Your task to perform on an android device: turn off improve location accuracy Image 0: 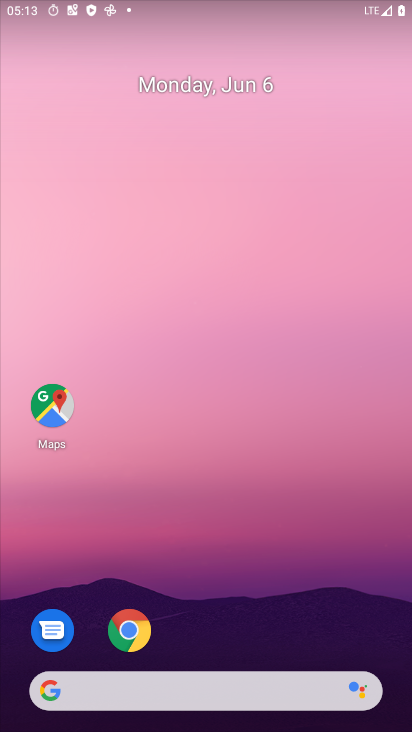
Step 0: drag from (267, 617) to (259, 84)
Your task to perform on an android device: turn off improve location accuracy Image 1: 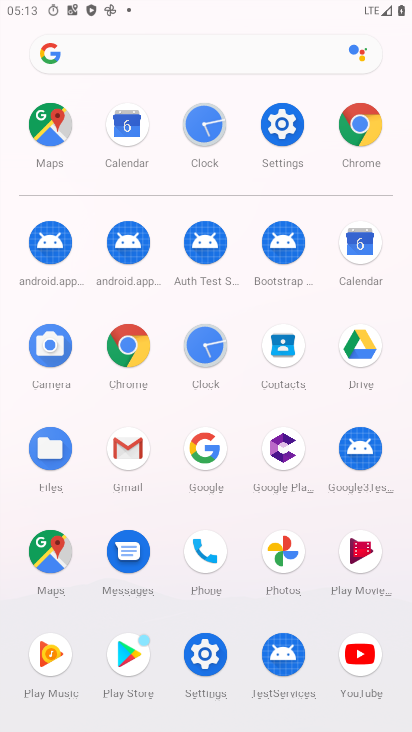
Step 1: click (212, 656)
Your task to perform on an android device: turn off improve location accuracy Image 2: 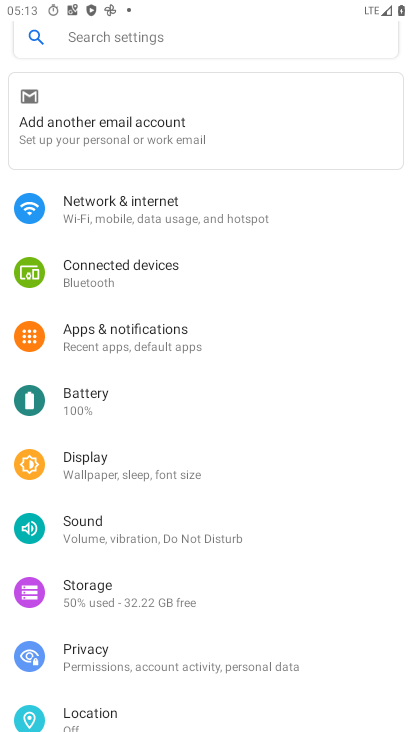
Step 2: drag from (197, 638) to (252, 343)
Your task to perform on an android device: turn off improve location accuracy Image 3: 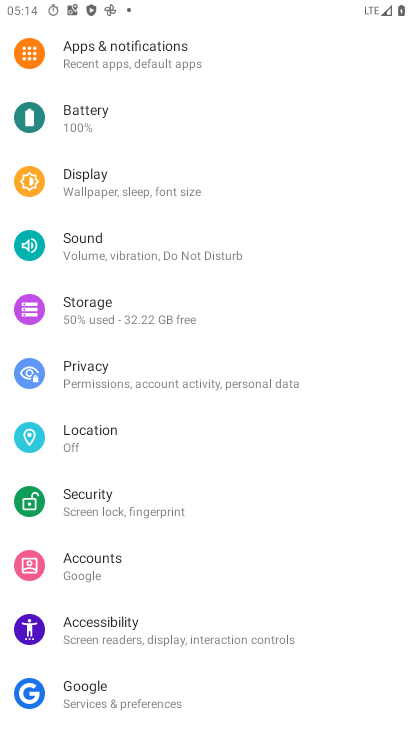
Step 3: drag from (171, 633) to (187, 324)
Your task to perform on an android device: turn off improve location accuracy Image 4: 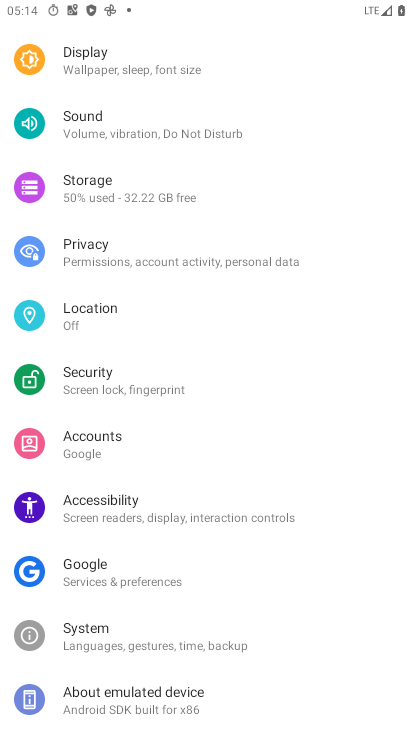
Step 4: drag from (202, 170) to (182, 504)
Your task to perform on an android device: turn off improve location accuracy Image 5: 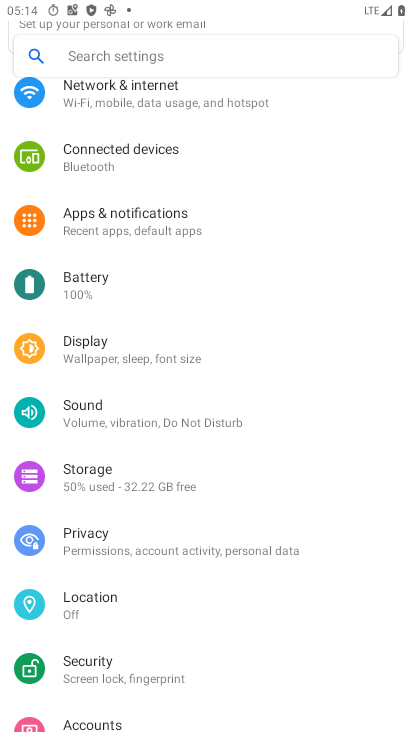
Step 5: click (66, 601)
Your task to perform on an android device: turn off improve location accuracy Image 6: 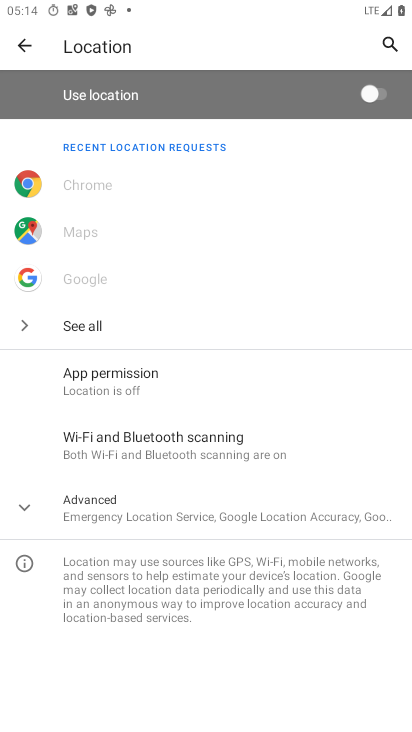
Step 6: click (131, 505)
Your task to perform on an android device: turn off improve location accuracy Image 7: 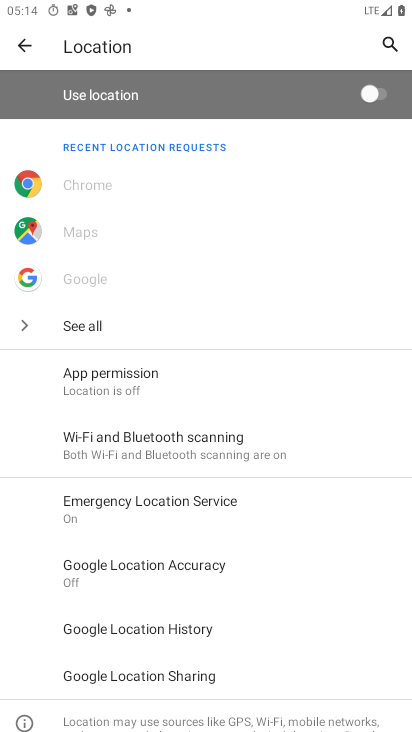
Step 7: click (148, 561)
Your task to perform on an android device: turn off improve location accuracy Image 8: 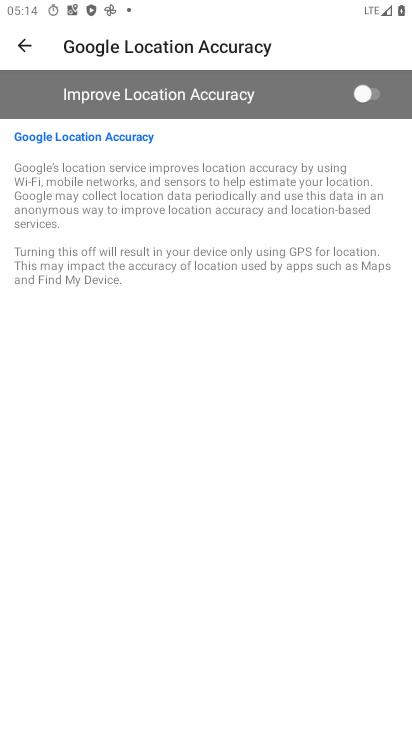
Step 8: task complete